Your task to perform on an android device: turn off notifications in google photos Image 0: 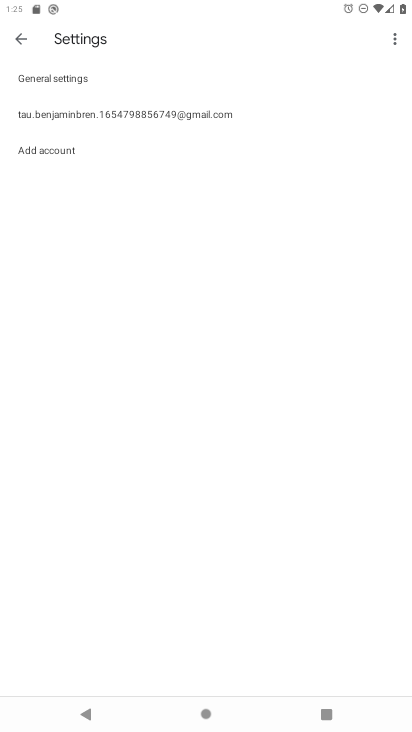
Step 0: press home button
Your task to perform on an android device: turn off notifications in google photos Image 1: 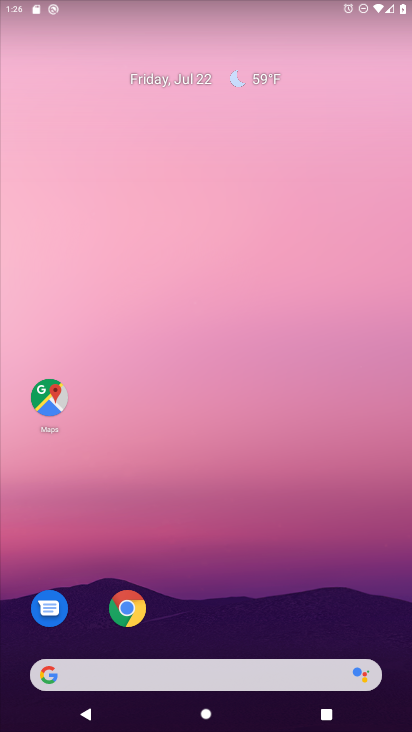
Step 1: drag from (365, 598) to (115, 11)
Your task to perform on an android device: turn off notifications in google photos Image 2: 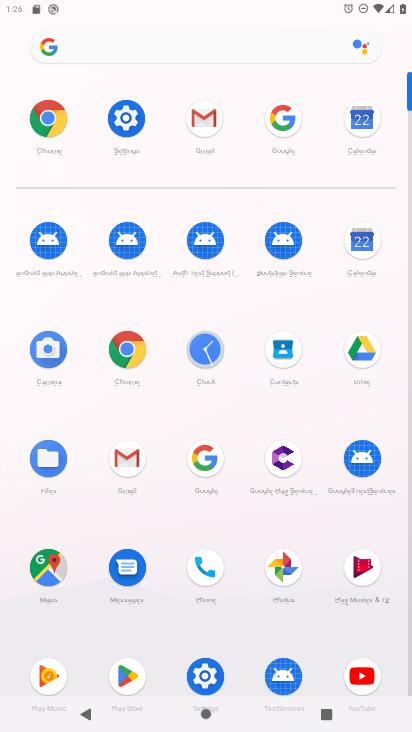
Step 2: click (274, 549)
Your task to perform on an android device: turn off notifications in google photos Image 3: 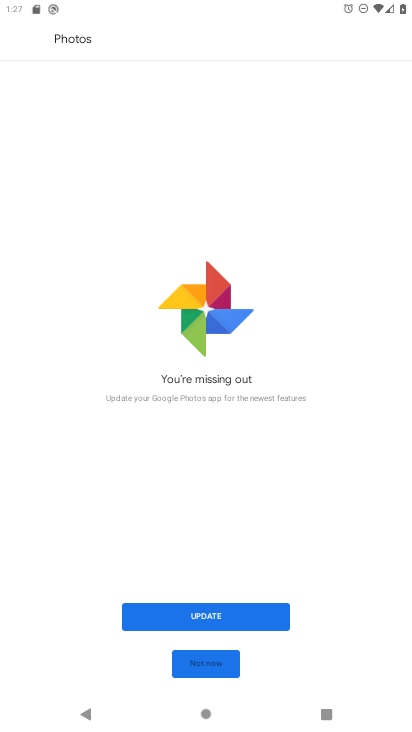
Step 3: click (205, 621)
Your task to perform on an android device: turn off notifications in google photos Image 4: 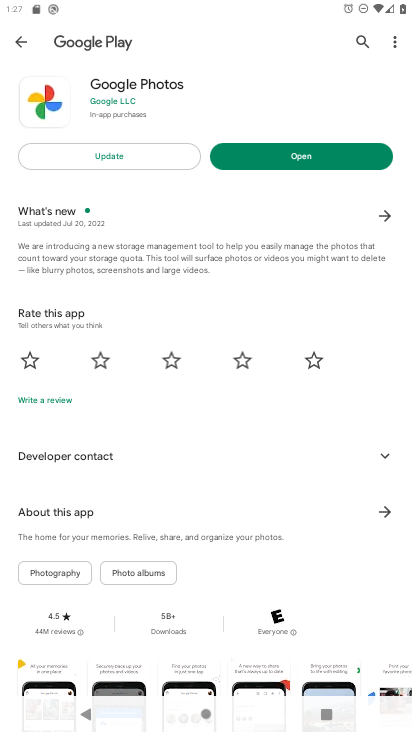
Step 4: click (108, 149)
Your task to perform on an android device: turn off notifications in google photos Image 5: 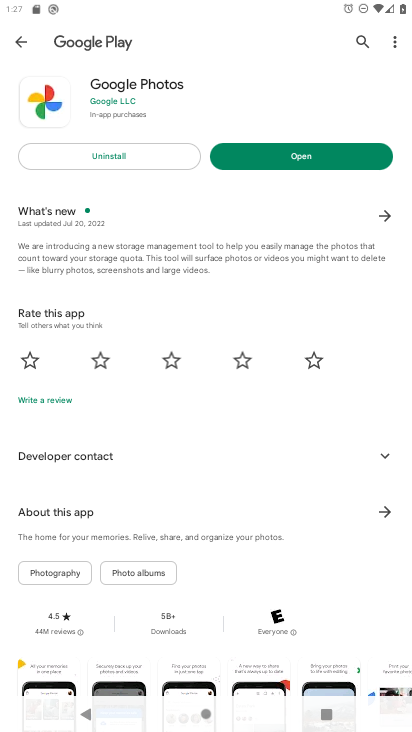
Step 5: click (277, 148)
Your task to perform on an android device: turn off notifications in google photos Image 6: 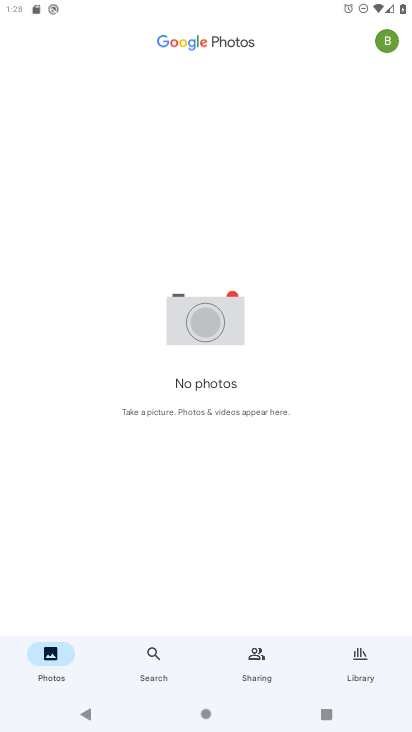
Step 6: click (385, 43)
Your task to perform on an android device: turn off notifications in google photos Image 7: 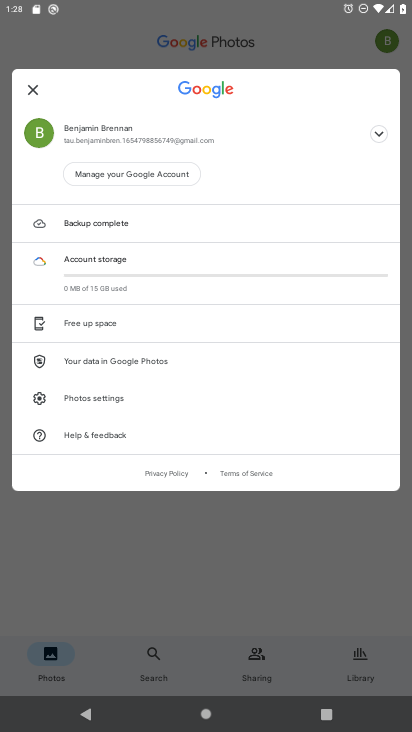
Step 7: click (94, 394)
Your task to perform on an android device: turn off notifications in google photos Image 8: 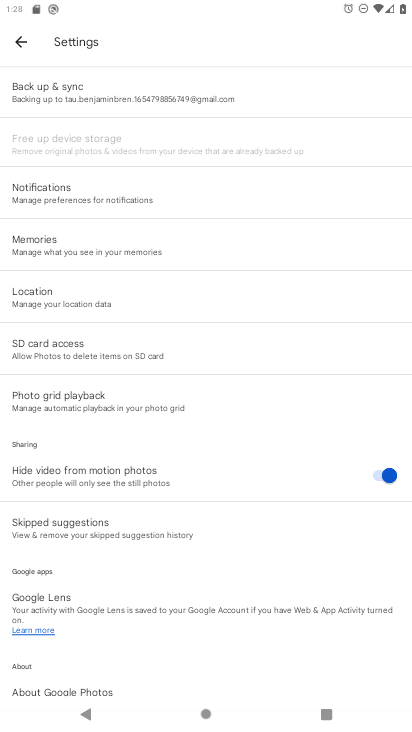
Step 8: click (118, 190)
Your task to perform on an android device: turn off notifications in google photos Image 9: 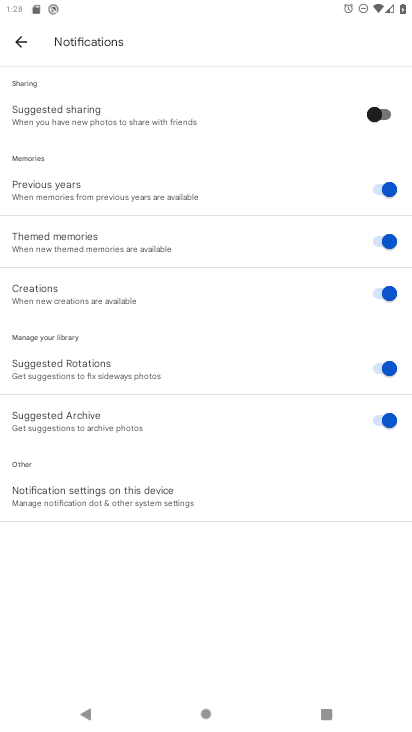
Step 9: task complete